Your task to perform on an android device: Open Google Maps and go to "Timeline" Image 0: 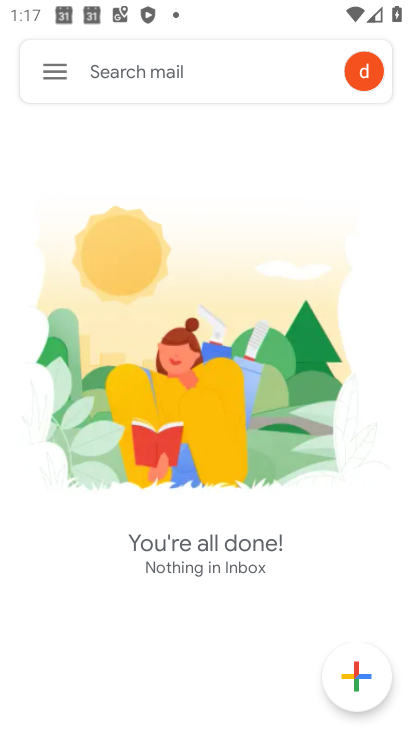
Step 0: press home button
Your task to perform on an android device: Open Google Maps and go to "Timeline" Image 1: 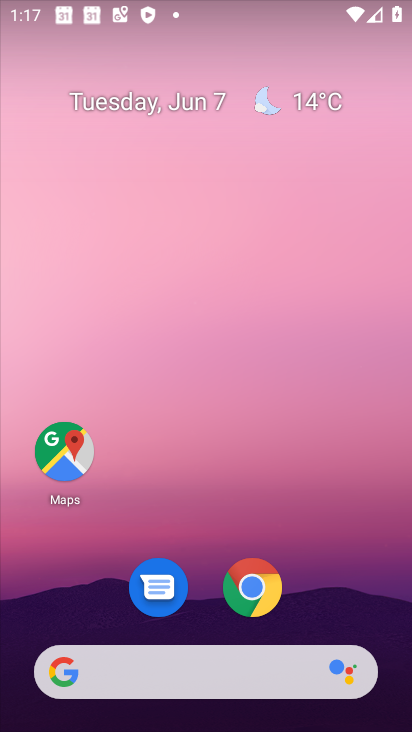
Step 1: drag from (279, 602) to (264, 30)
Your task to perform on an android device: Open Google Maps and go to "Timeline" Image 2: 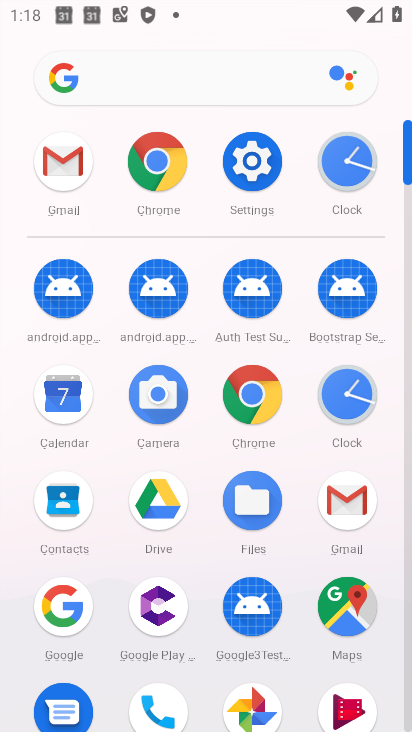
Step 2: click (324, 601)
Your task to perform on an android device: Open Google Maps and go to "Timeline" Image 3: 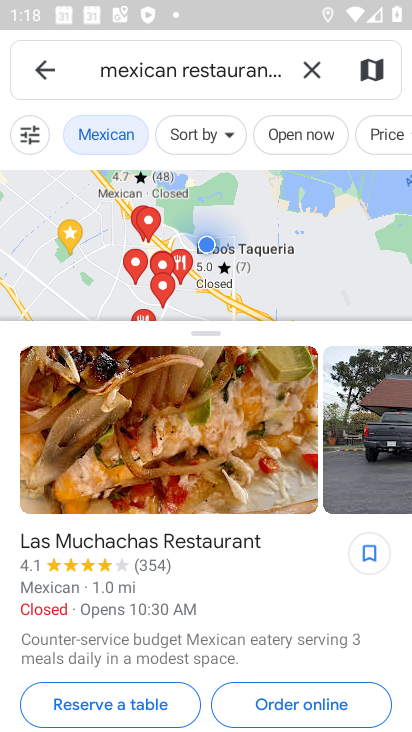
Step 3: click (49, 71)
Your task to perform on an android device: Open Google Maps and go to "Timeline" Image 4: 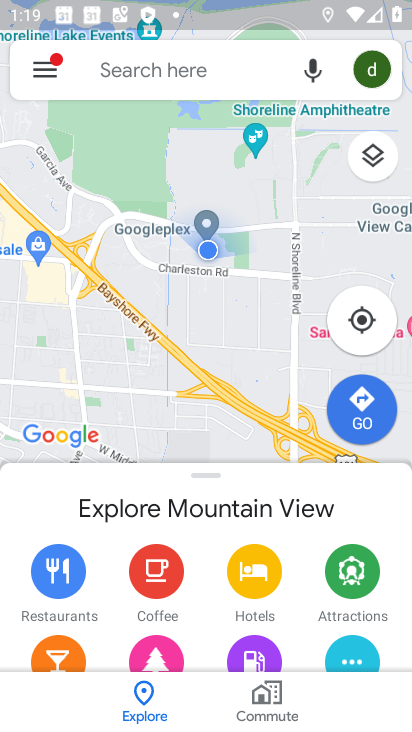
Step 4: click (27, 73)
Your task to perform on an android device: Open Google Maps and go to "Timeline" Image 5: 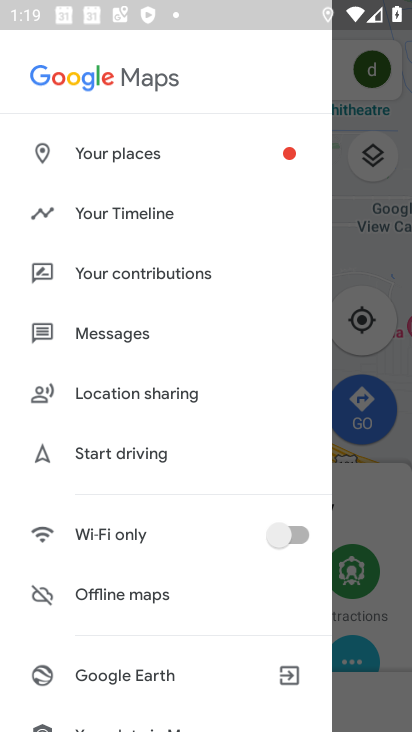
Step 5: click (174, 213)
Your task to perform on an android device: Open Google Maps and go to "Timeline" Image 6: 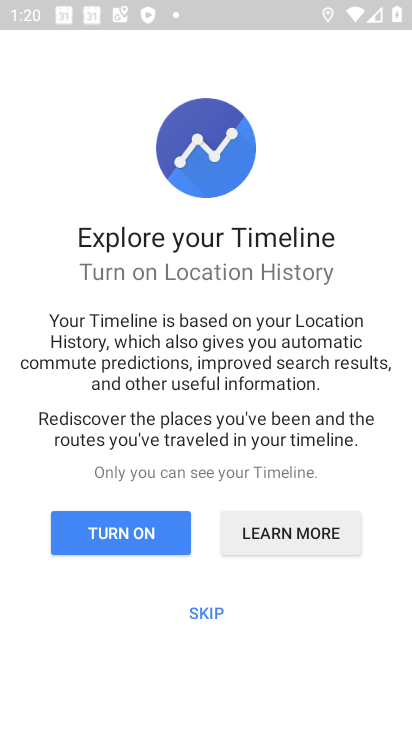
Step 6: click (204, 607)
Your task to perform on an android device: Open Google Maps and go to "Timeline" Image 7: 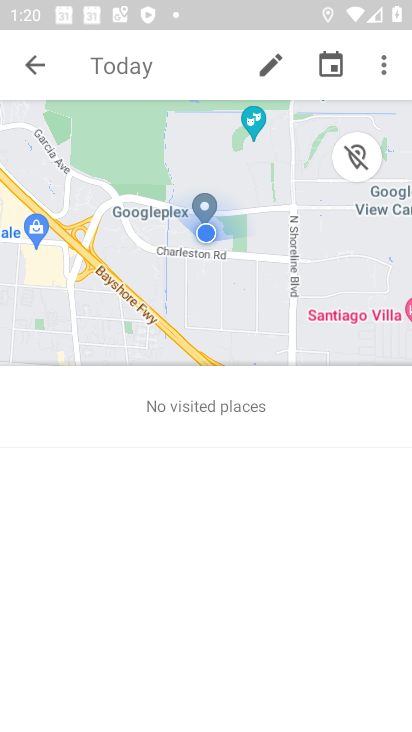
Step 7: task complete